Your task to perform on an android device: find which apps use the phone's location Image 0: 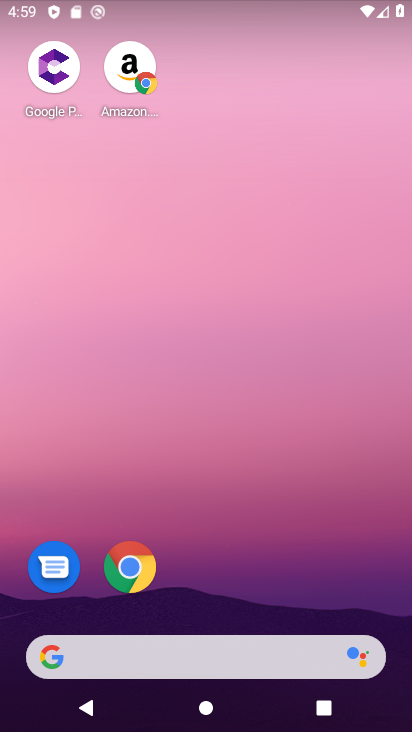
Step 0: drag from (386, 572) to (279, 21)
Your task to perform on an android device: find which apps use the phone's location Image 1: 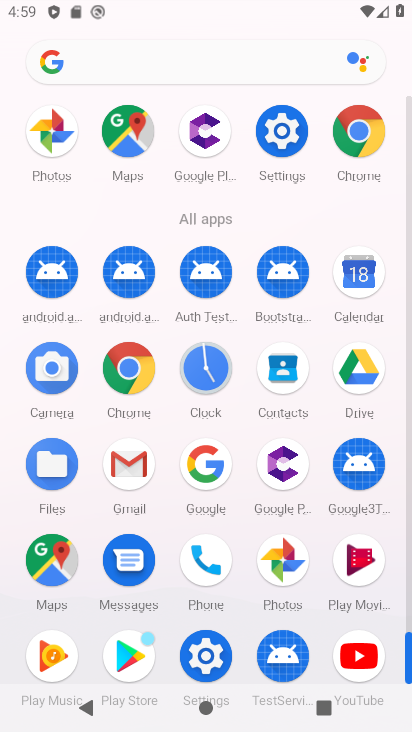
Step 1: click (286, 132)
Your task to perform on an android device: find which apps use the phone's location Image 2: 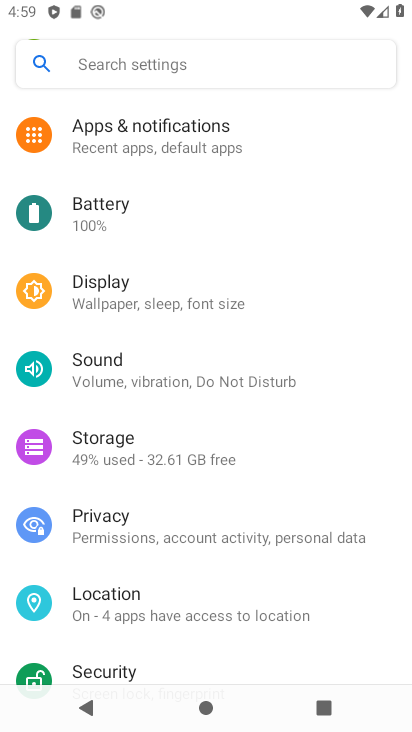
Step 2: drag from (263, 440) to (268, 190)
Your task to perform on an android device: find which apps use the phone's location Image 3: 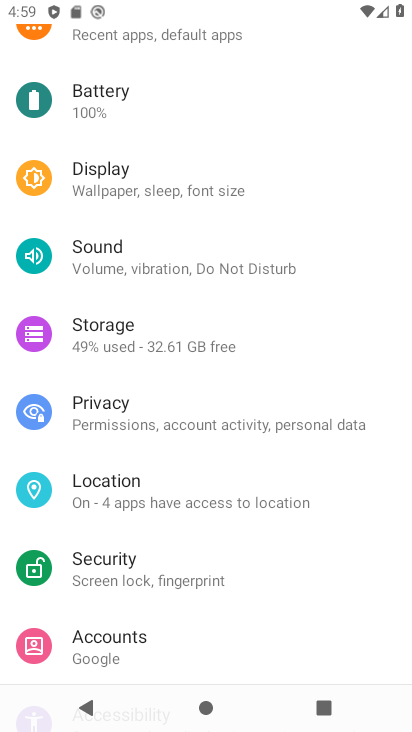
Step 3: click (164, 486)
Your task to perform on an android device: find which apps use the phone's location Image 4: 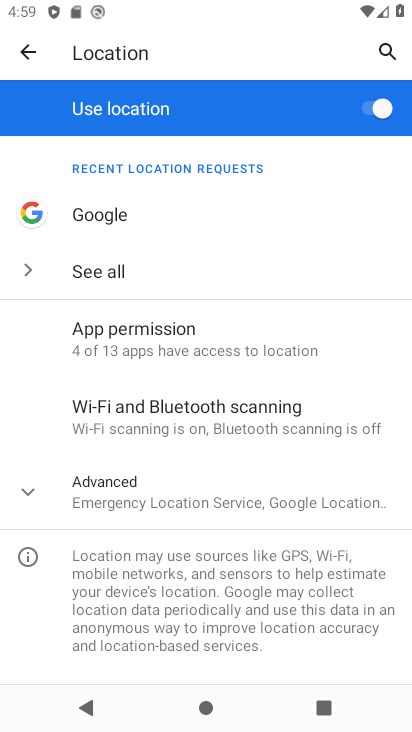
Step 4: drag from (238, 537) to (246, 308)
Your task to perform on an android device: find which apps use the phone's location Image 5: 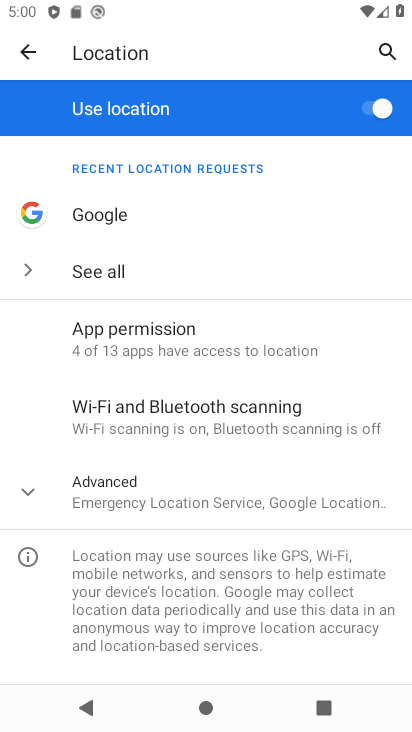
Step 5: click (182, 343)
Your task to perform on an android device: find which apps use the phone's location Image 6: 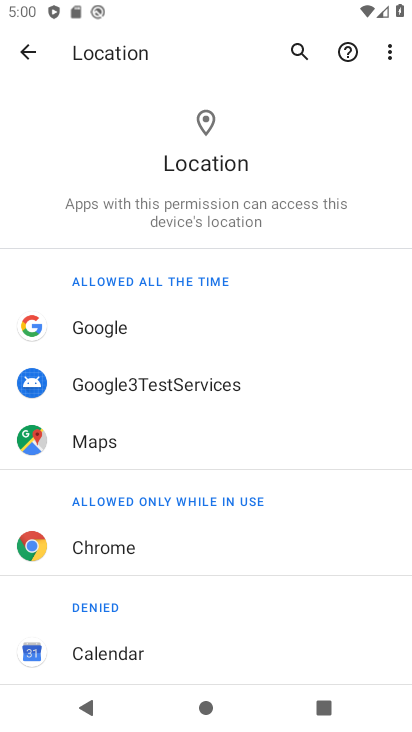
Step 6: task complete